Your task to perform on an android device: turn off airplane mode Image 0: 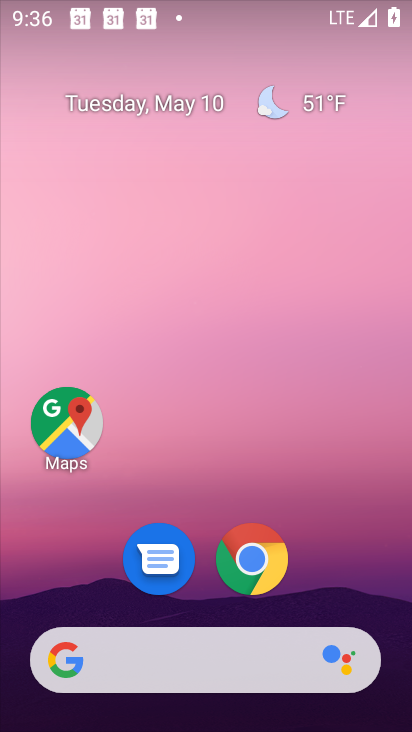
Step 0: drag from (345, 561) to (277, 70)
Your task to perform on an android device: turn off airplane mode Image 1: 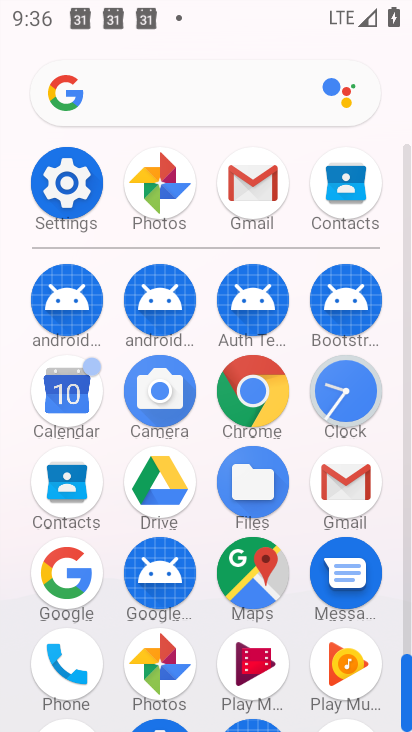
Step 1: click (65, 180)
Your task to perform on an android device: turn off airplane mode Image 2: 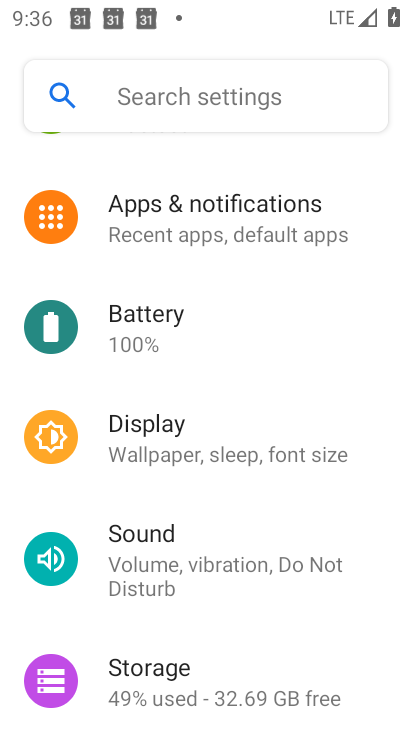
Step 2: drag from (209, 285) to (179, 437)
Your task to perform on an android device: turn off airplane mode Image 3: 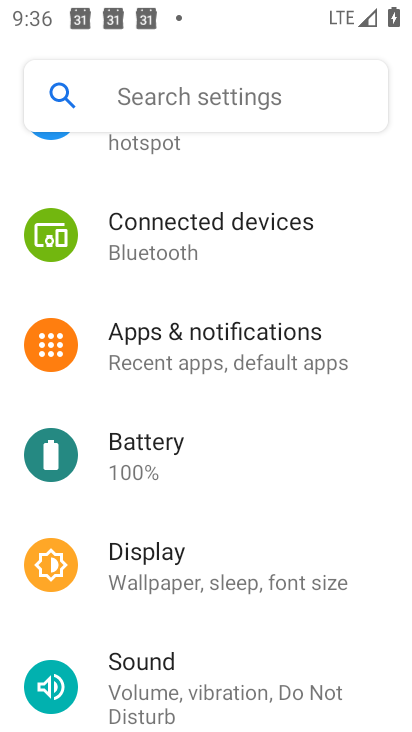
Step 3: drag from (203, 272) to (190, 453)
Your task to perform on an android device: turn off airplane mode Image 4: 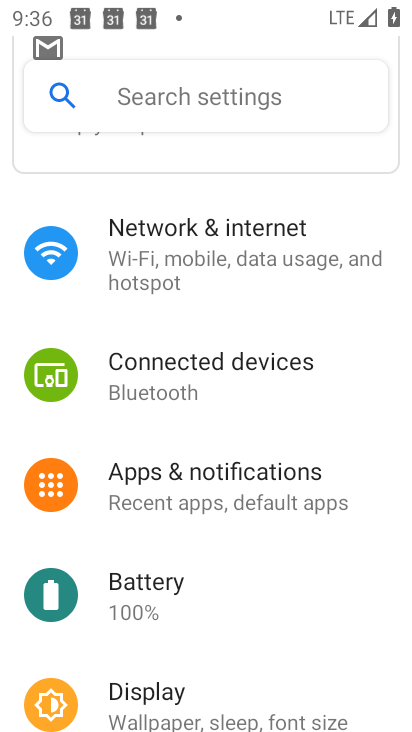
Step 4: click (206, 247)
Your task to perform on an android device: turn off airplane mode Image 5: 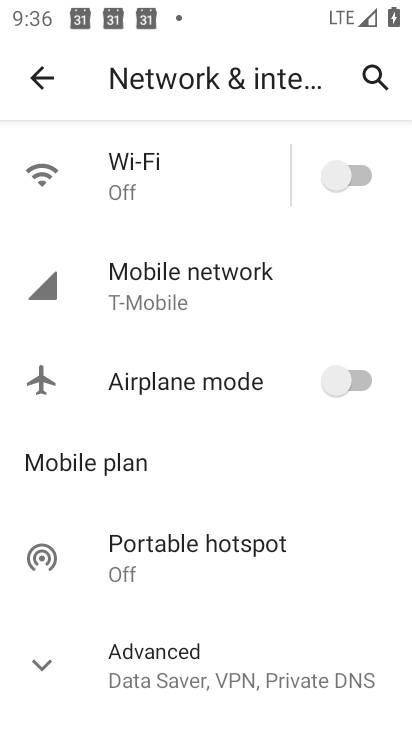
Step 5: task complete